Your task to perform on an android device: Turn off the flashlight Image 0: 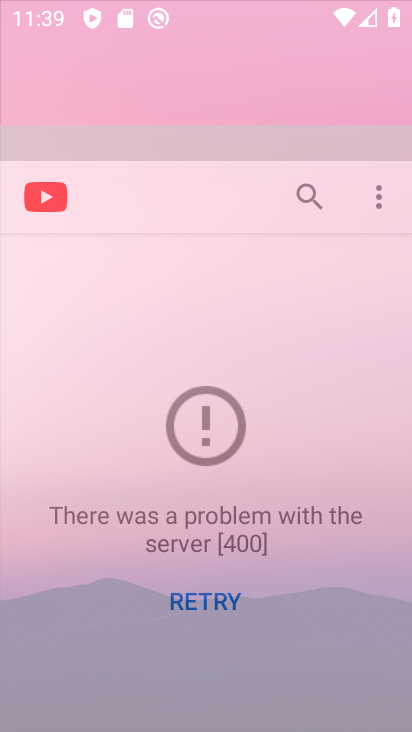
Step 0: drag from (354, 557) to (277, 164)
Your task to perform on an android device: Turn off the flashlight Image 1: 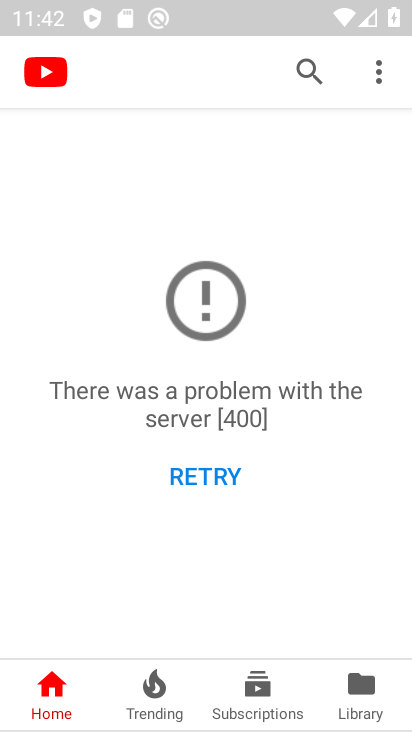
Step 1: press home button
Your task to perform on an android device: Turn off the flashlight Image 2: 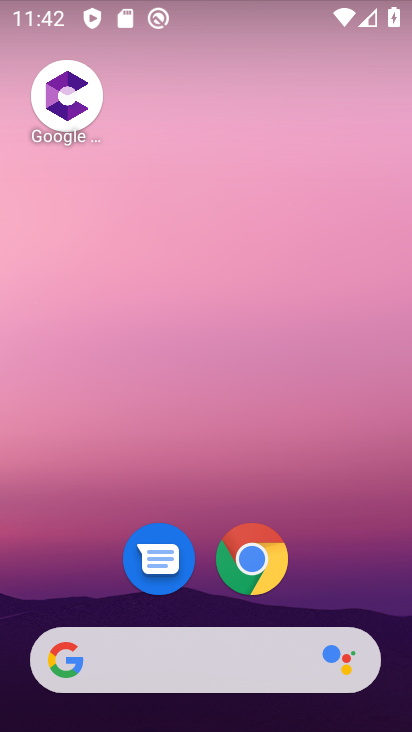
Step 2: drag from (61, 532) to (176, 6)
Your task to perform on an android device: Turn off the flashlight Image 3: 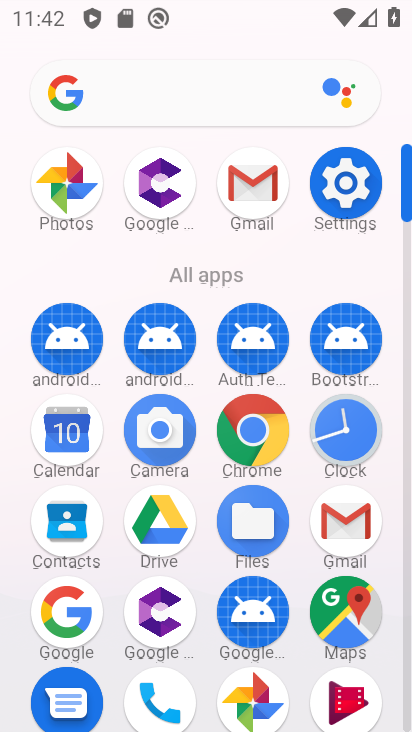
Step 3: click (326, 237)
Your task to perform on an android device: Turn off the flashlight Image 4: 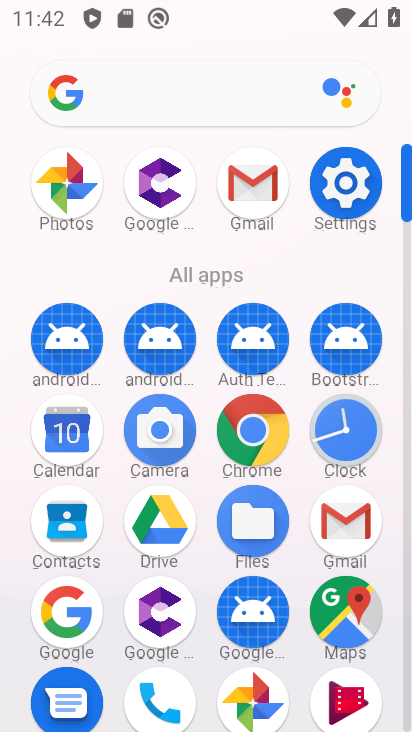
Step 4: click (326, 222)
Your task to perform on an android device: Turn off the flashlight Image 5: 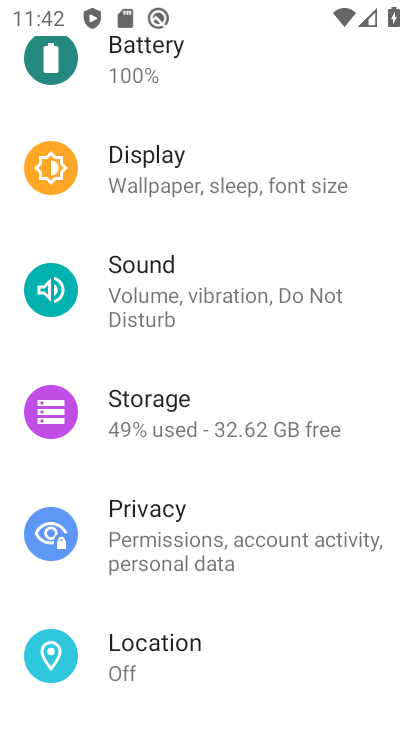
Step 5: task complete